Your task to perform on an android device: Set the phone to "Do not disturb". Image 0: 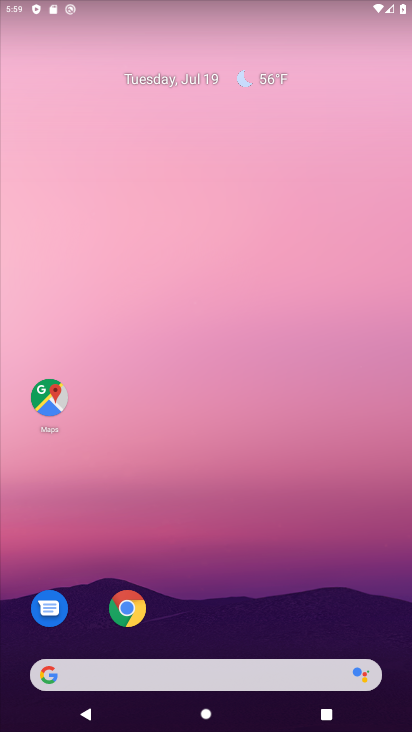
Step 0: click (213, 15)
Your task to perform on an android device: Set the phone to "Do not disturb". Image 1: 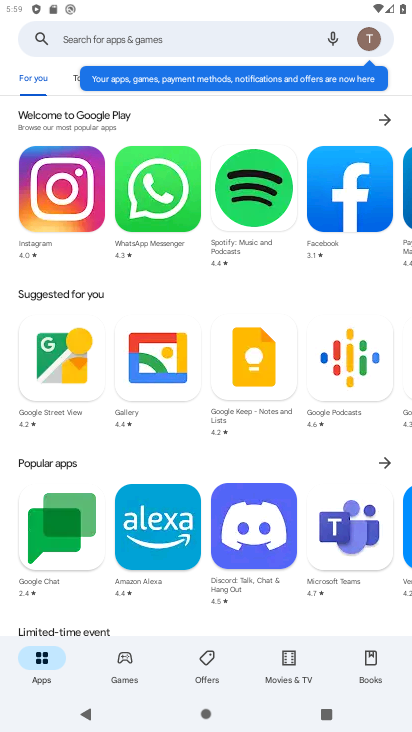
Step 1: press home button
Your task to perform on an android device: Set the phone to "Do not disturb". Image 2: 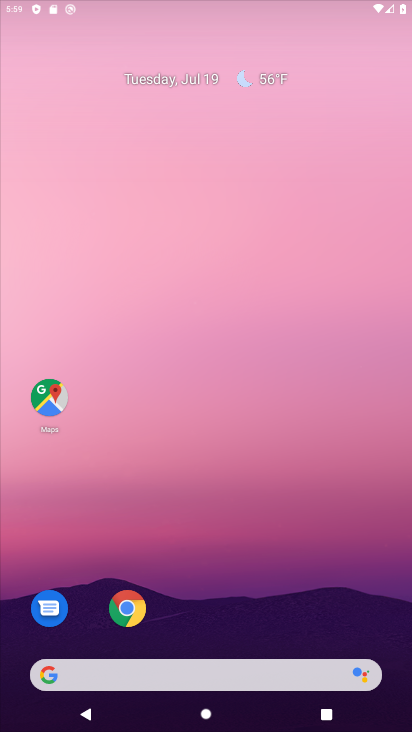
Step 2: drag from (145, 7) to (188, 476)
Your task to perform on an android device: Set the phone to "Do not disturb". Image 3: 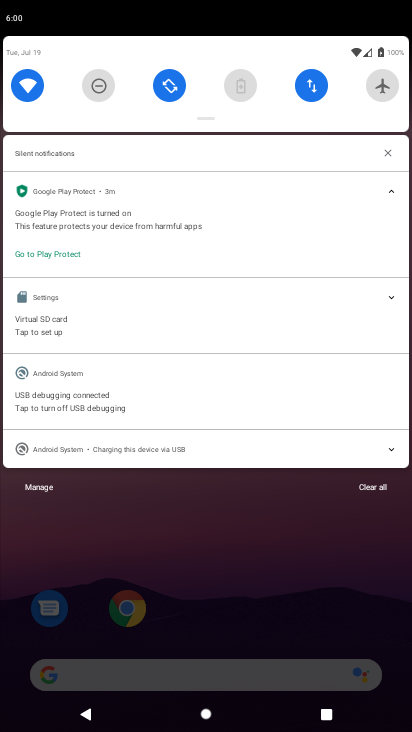
Step 3: click (94, 81)
Your task to perform on an android device: Set the phone to "Do not disturb". Image 4: 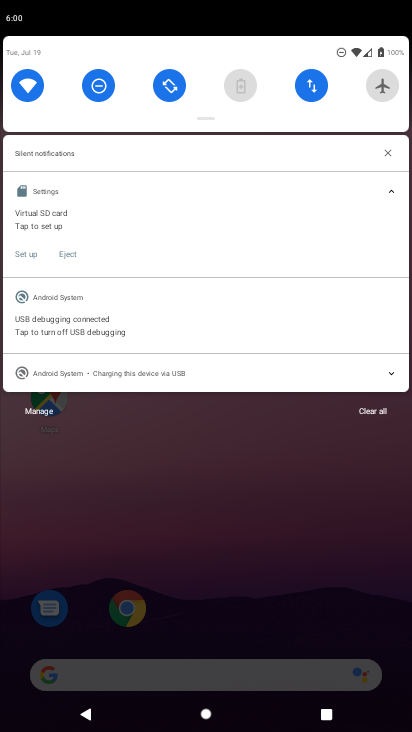
Step 4: task complete